Your task to perform on an android device: Open calendar and show me the third week of next month Image 0: 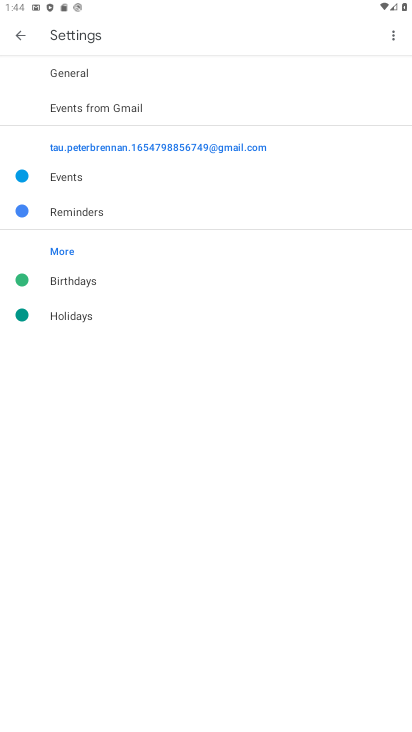
Step 0: press home button
Your task to perform on an android device: Open calendar and show me the third week of next month Image 1: 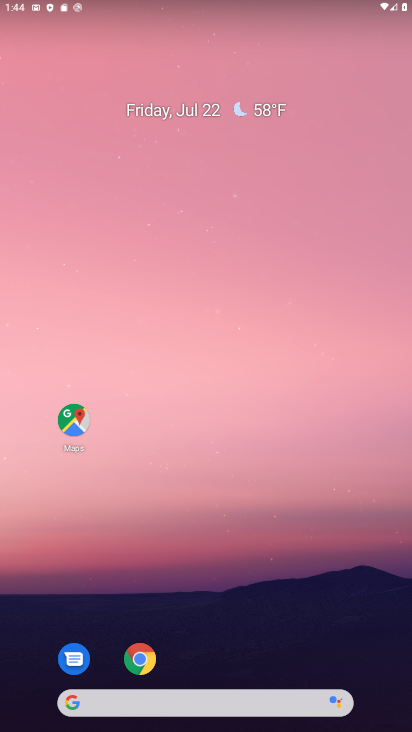
Step 1: drag from (225, 682) to (293, 81)
Your task to perform on an android device: Open calendar and show me the third week of next month Image 2: 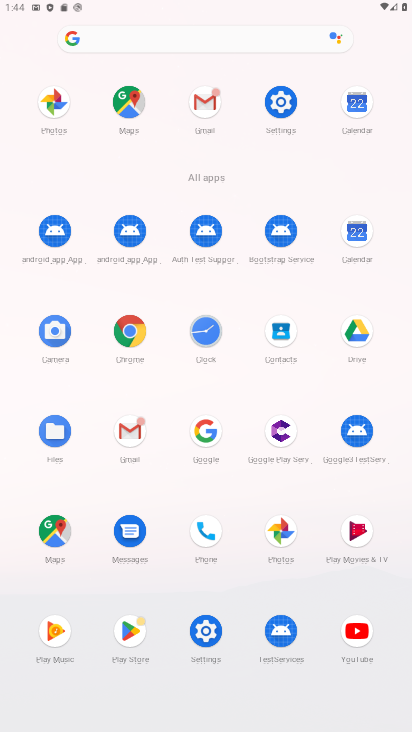
Step 2: click (357, 225)
Your task to perform on an android device: Open calendar and show me the third week of next month Image 3: 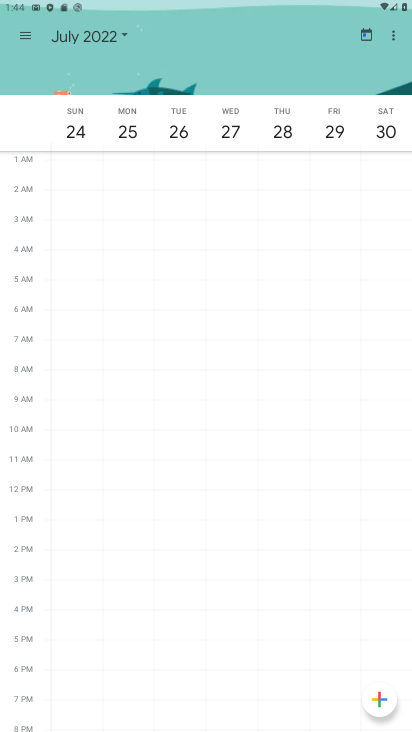
Step 3: task complete